Your task to perform on an android device: read, delete, or share a saved page in the chrome app Image 0: 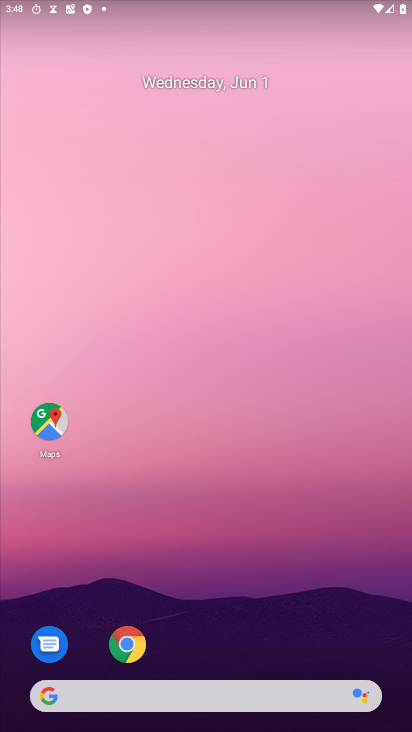
Step 0: click (166, 631)
Your task to perform on an android device: read, delete, or share a saved page in the chrome app Image 1: 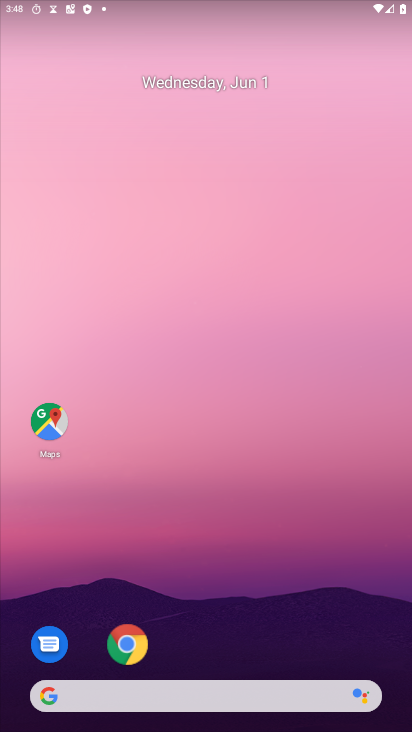
Step 1: click (141, 641)
Your task to perform on an android device: read, delete, or share a saved page in the chrome app Image 2: 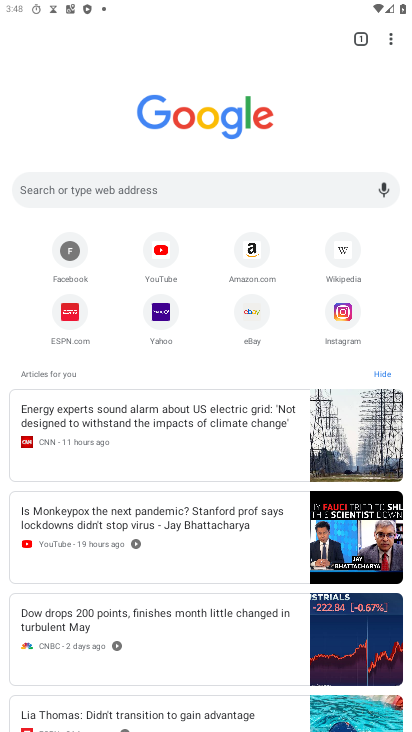
Step 2: click (393, 37)
Your task to perform on an android device: read, delete, or share a saved page in the chrome app Image 3: 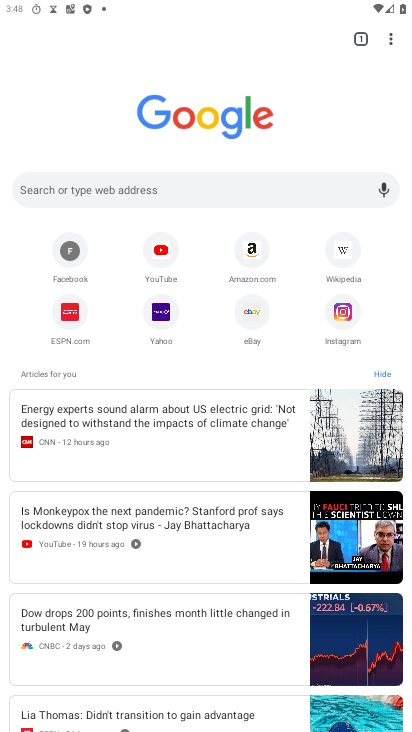
Step 3: drag from (391, 39) to (265, 250)
Your task to perform on an android device: read, delete, or share a saved page in the chrome app Image 4: 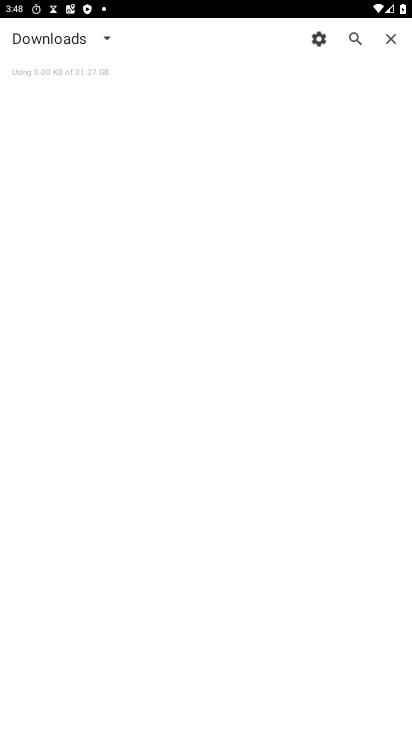
Step 4: click (103, 38)
Your task to perform on an android device: read, delete, or share a saved page in the chrome app Image 5: 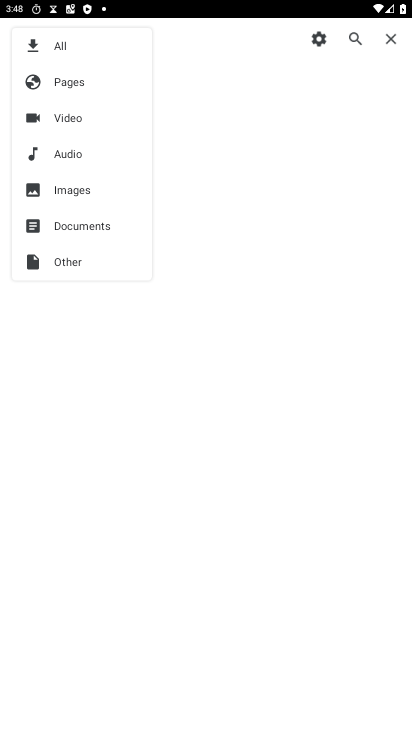
Step 5: click (48, 80)
Your task to perform on an android device: read, delete, or share a saved page in the chrome app Image 6: 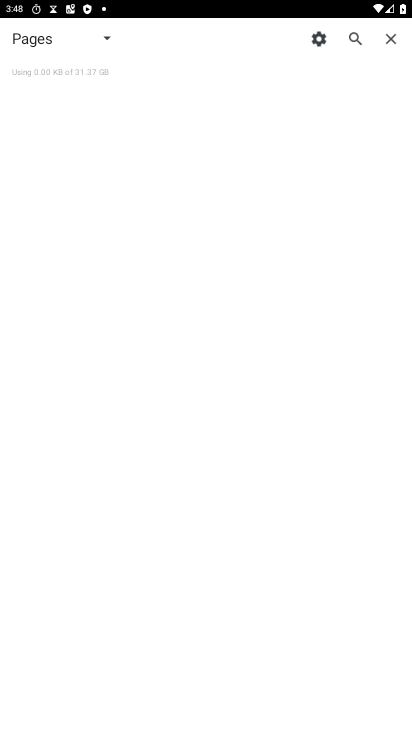
Step 6: click (104, 35)
Your task to perform on an android device: read, delete, or share a saved page in the chrome app Image 7: 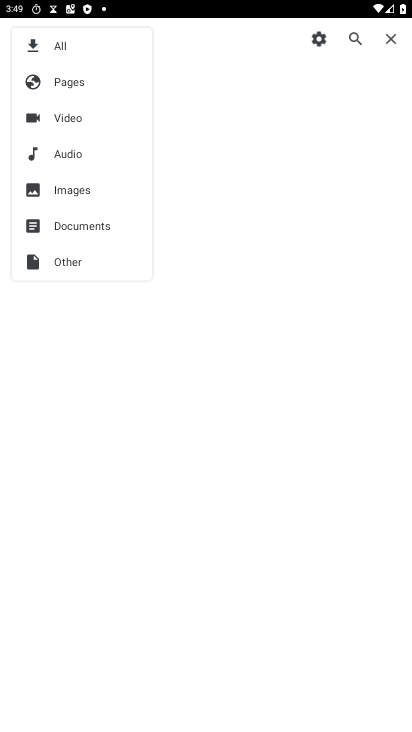
Step 7: click (102, 35)
Your task to perform on an android device: read, delete, or share a saved page in the chrome app Image 8: 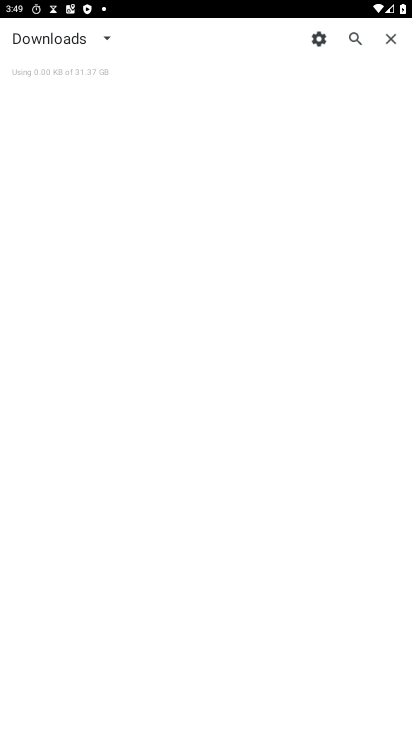
Step 8: task complete